Your task to perform on an android device: Toggle the flashlight Image 0: 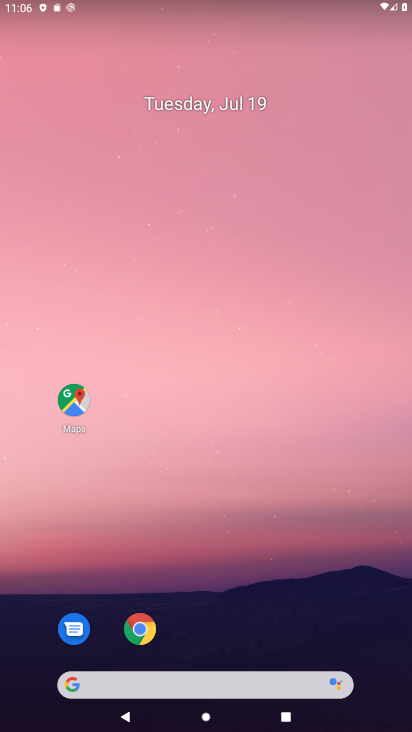
Step 0: drag from (247, 13) to (269, 452)
Your task to perform on an android device: Toggle the flashlight Image 1: 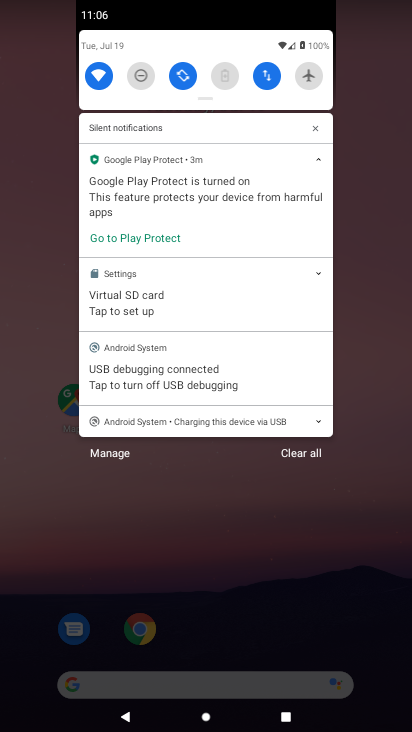
Step 1: drag from (197, 48) to (213, 341)
Your task to perform on an android device: Toggle the flashlight Image 2: 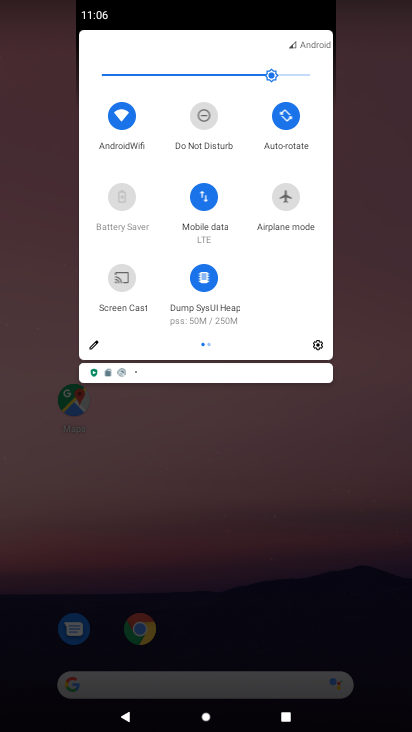
Step 2: click (100, 343)
Your task to perform on an android device: Toggle the flashlight Image 3: 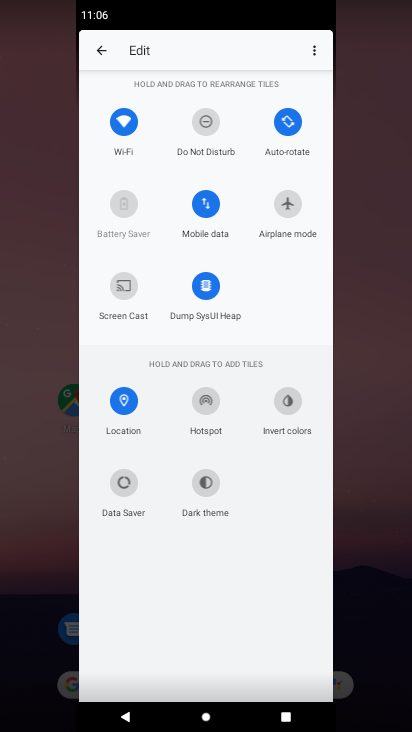
Step 3: task complete